Your task to perform on an android device: What's the weather today? Image 0: 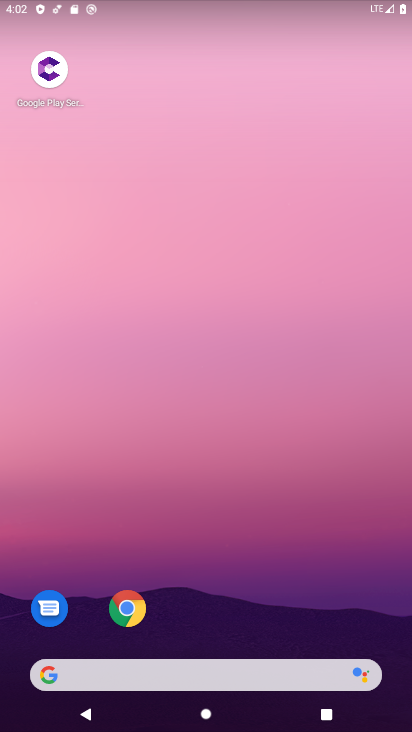
Step 0: drag from (210, 643) to (222, 43)
Your task to perform on an android device: What's the weather today? Image 1: 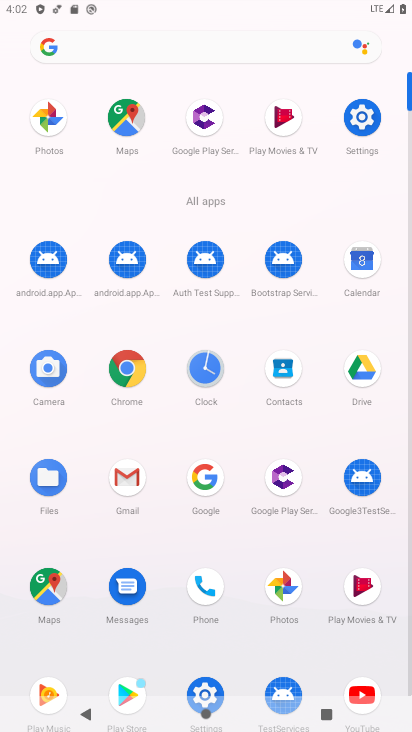
Step 1: press home button
Your task to perform on an android device: What's the weather today? Image 2: 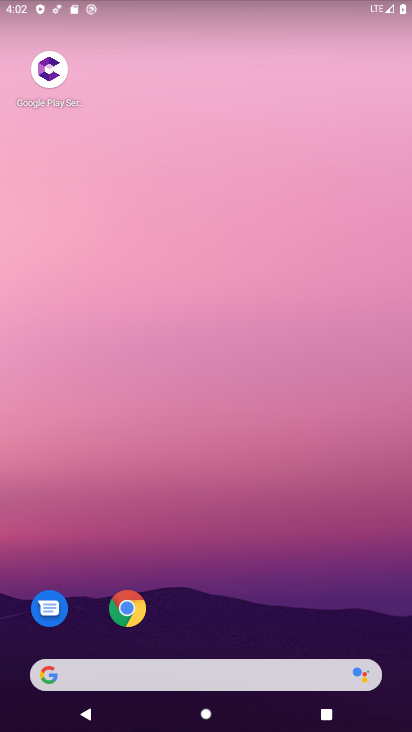
Step 2: click (182, 674)
Your task to perform on an android device: What's the weather today? Image 3: 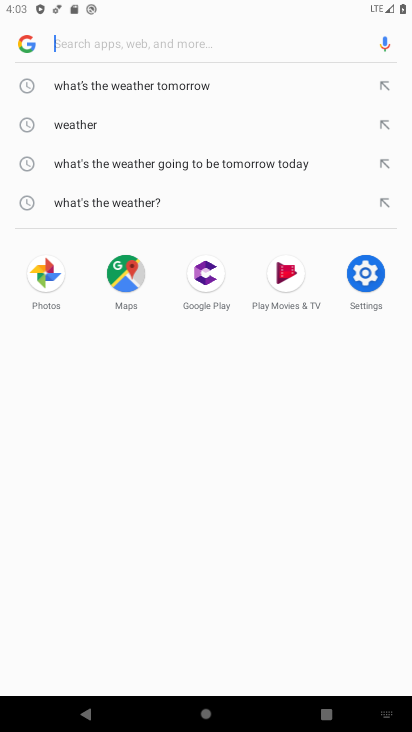
Step 3: click (107, 118)
Your task to perform on an android device: What's the weather today? Image 4: 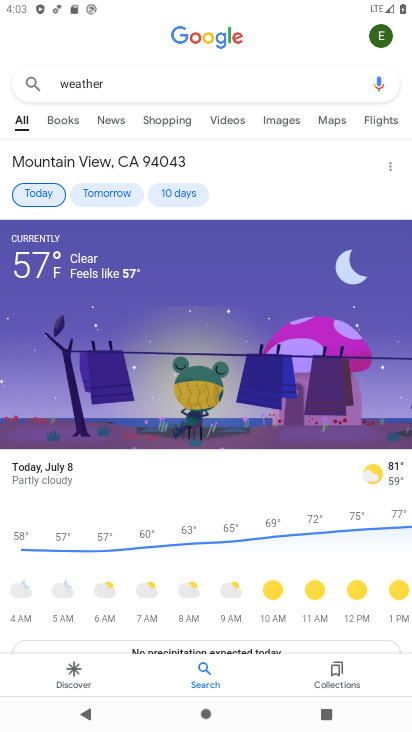
Step 4: task complete